Your task to perform on an android device: see sites visited before in the chrome app Image 0: 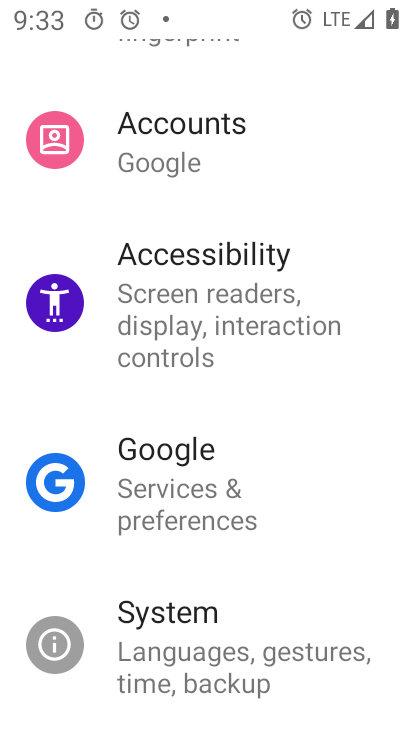
Step 0: press home button
Your task to perform on an android device: see sites visited before in the chrome app Image 1: 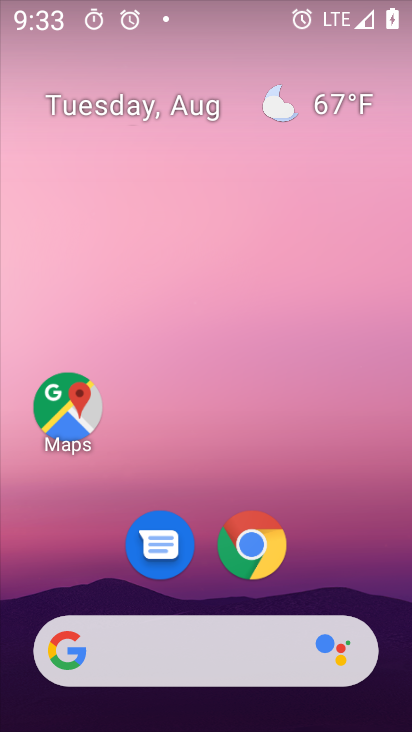
Step 1: drag from (196, 647) to (238, 96)
Your task to perform on an android device: see sites visited before in the chrome app Image 2: 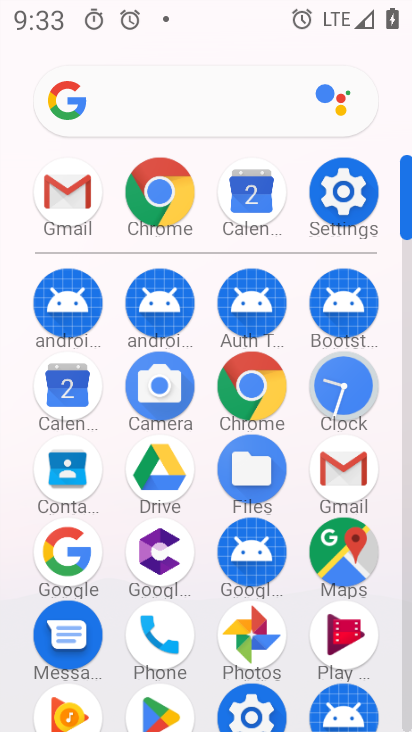
Step 2: click (170, 204)
Your task to perform on an android device: see sites visited before in the chrome app Image 3: 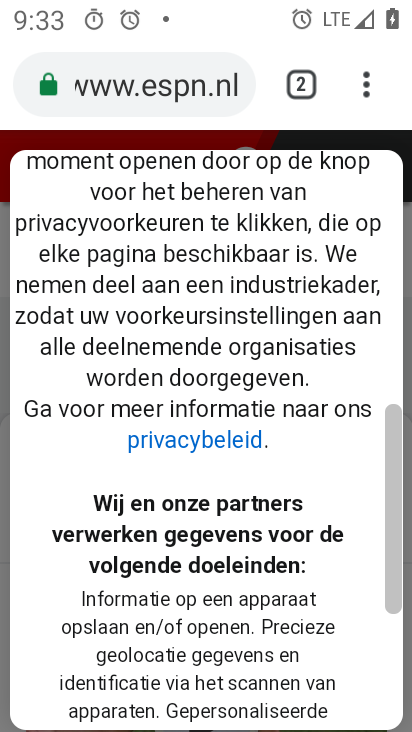
Step 3: click (374, 89)
Your task to perform on an android device: see sites visited before in the chrome app Image 4: 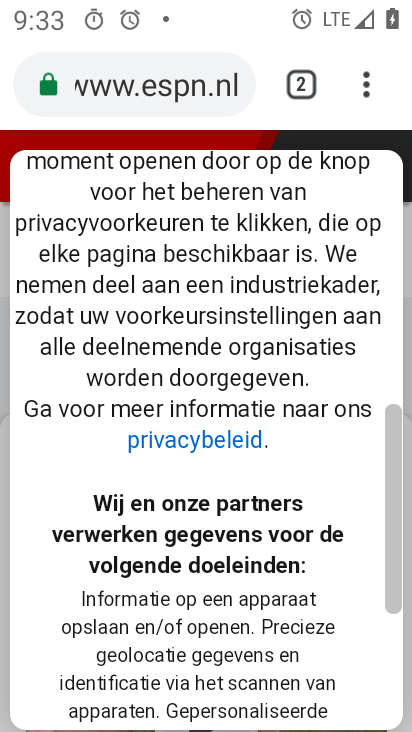
Step 4: click (364, 81)
Your task to perform on an android device: see sites visited before in the chrome app Image 5: 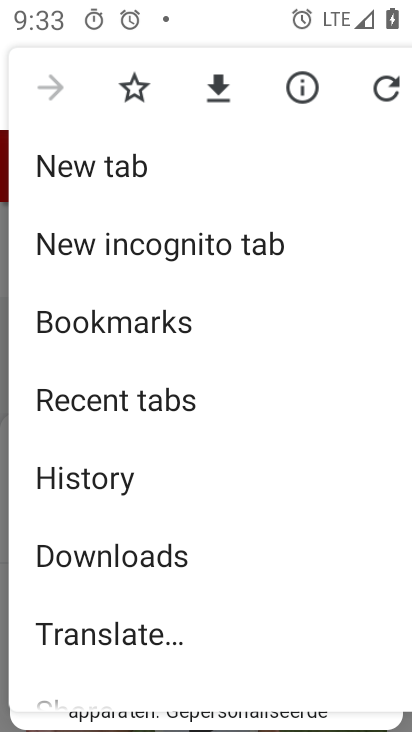
Step 5: click (98, 483)
Your task to perform on an android device: see sites visited before in the chrome app Image 6: 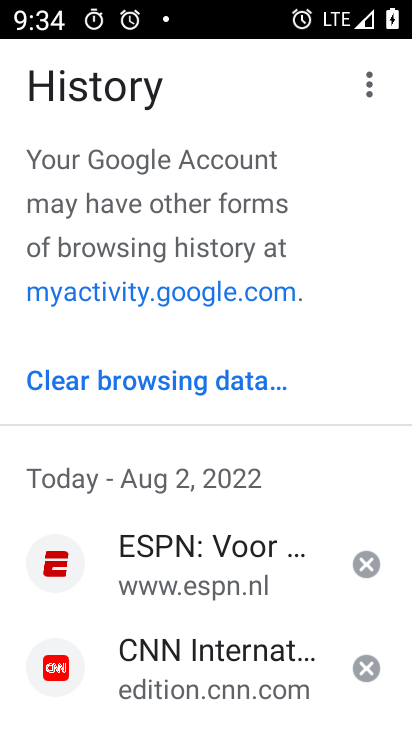
Step 6: task complete